Your task to perform on an android device: install app "McDonald's" Image 0: 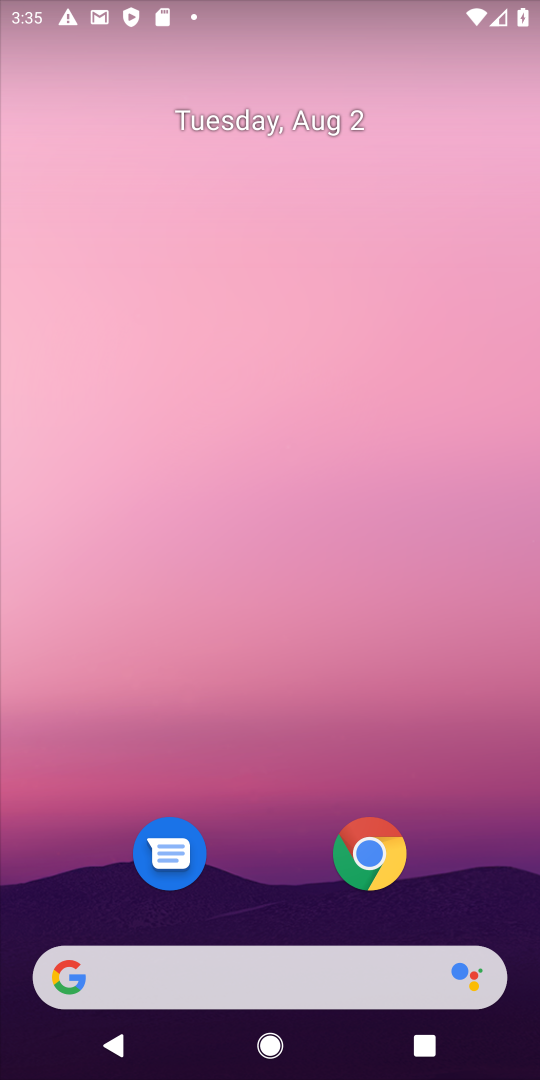
Step 0: drag from (299, 1067) to (321, 339)
Your task to perform on an android device: install app "McDonald's" Image 1: 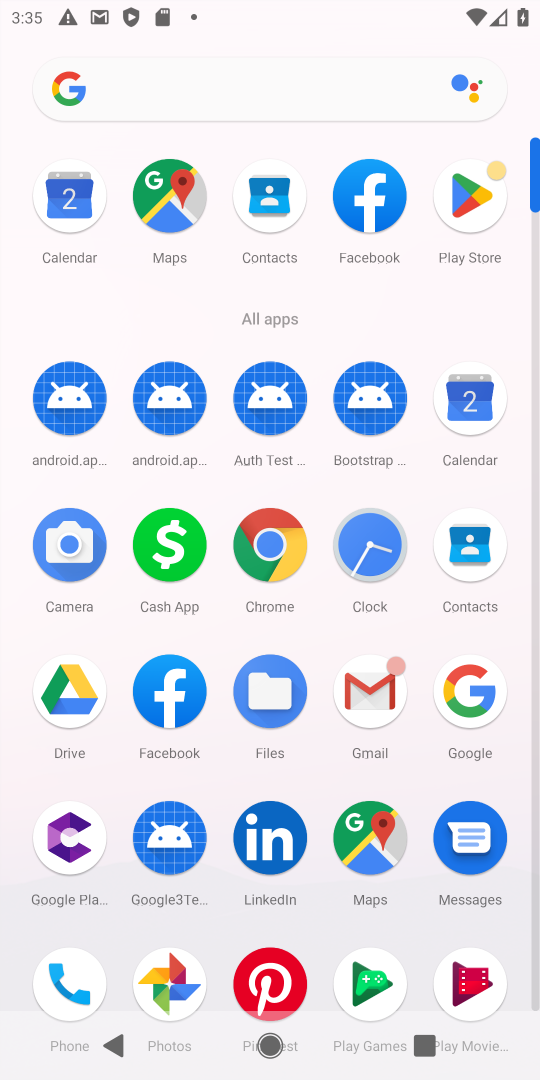
Step 1: click (471, 192)
Your task to perform on an android device: install app "McDonald's" Image 2: 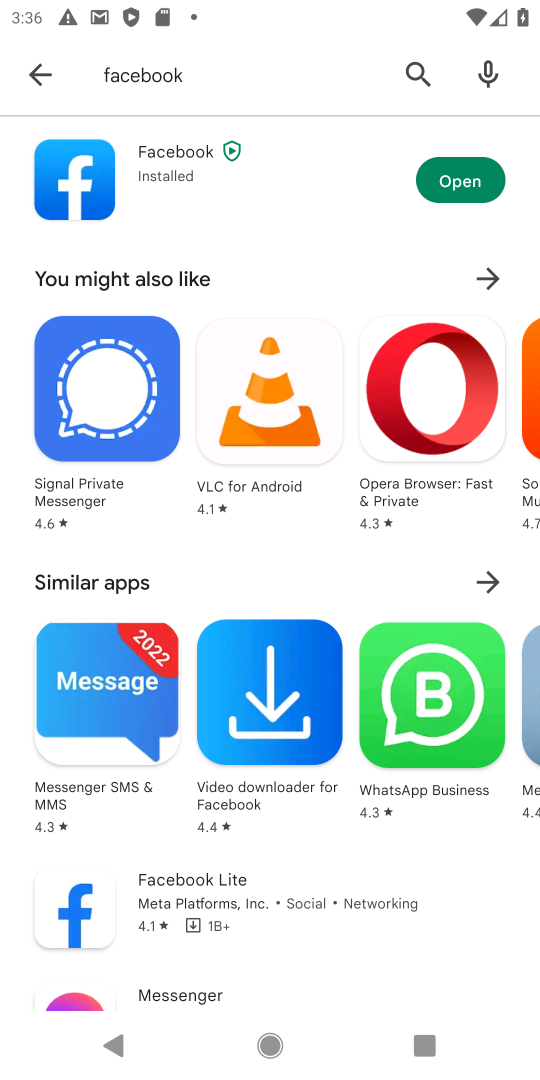
Step 2: click (414, 67)
Your task to perform on an android device: install app "McDonald's" Image 3: 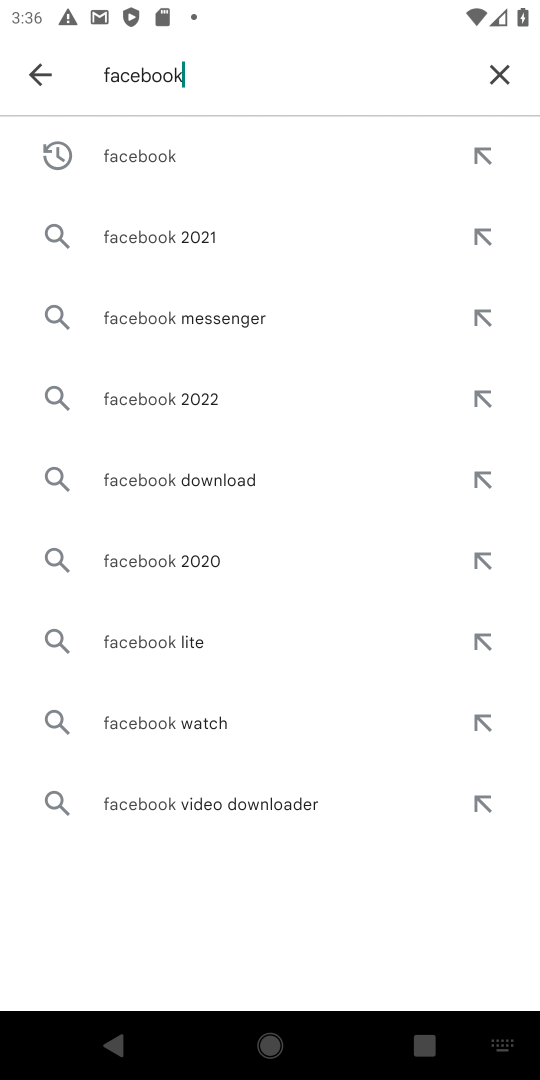
Step 3: click (508, 64)
Your task to perform on an android device: install app "McDonald's" Image 4: 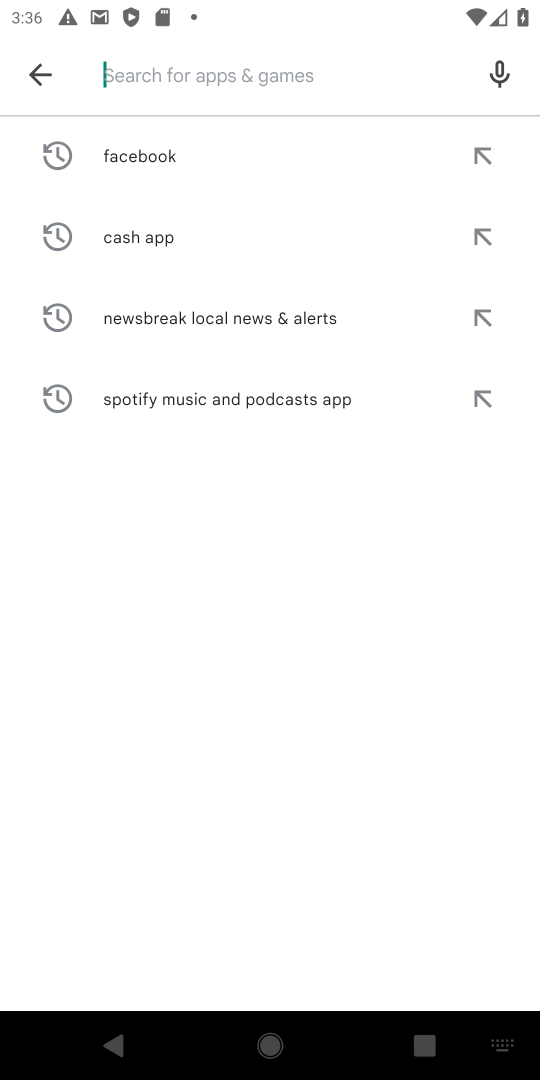
Step 4: type "McDonald's"
Your task to perform on an android device: install app "McDonald's" Image 5: 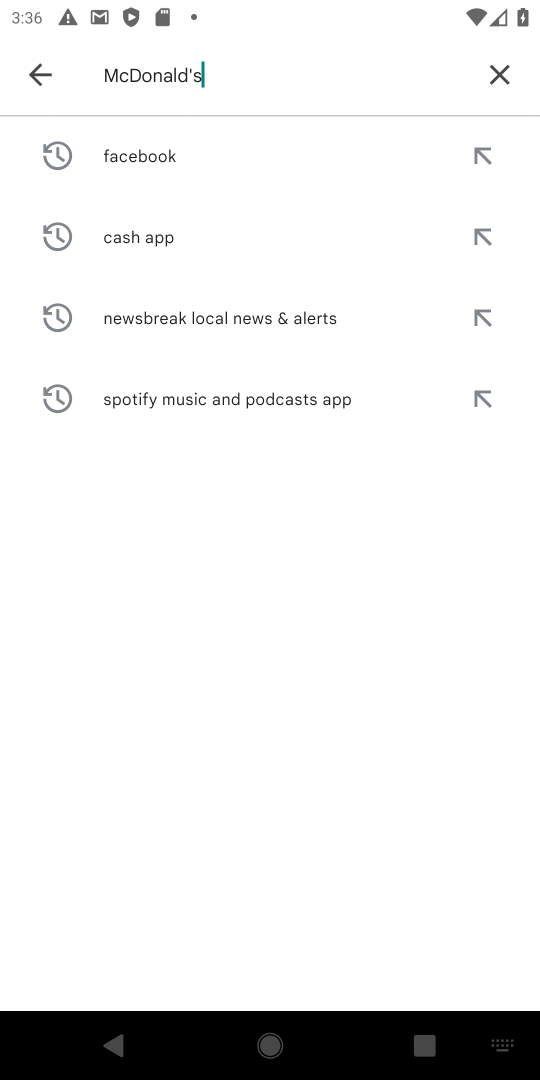
Step 5: type ""
Your task to perform on an android device: install app "McDonald's" Image 6: 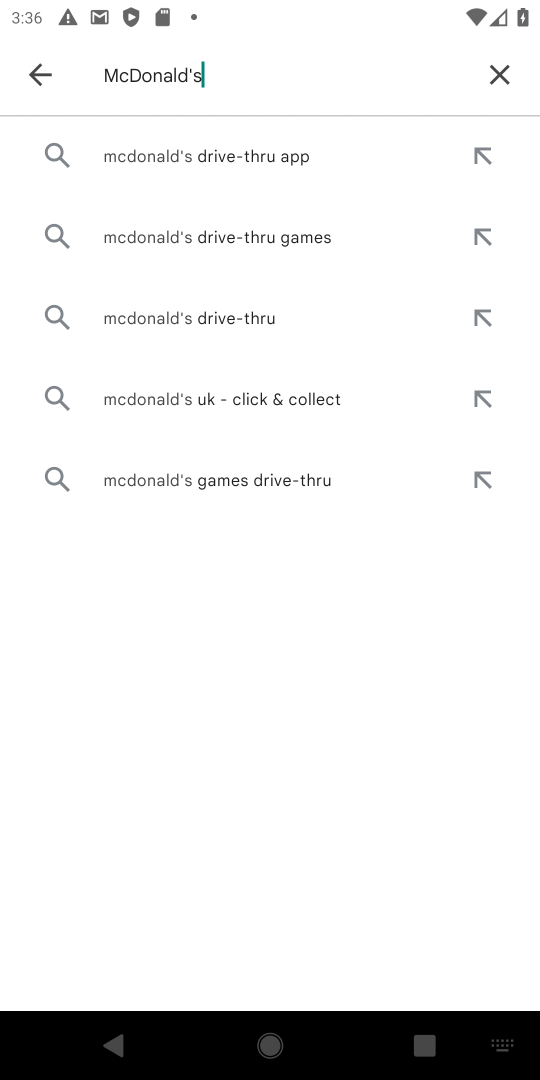
Step 6: click (149, 151)
Your task to perform on an android device: install app "McDonald's" Image 7: 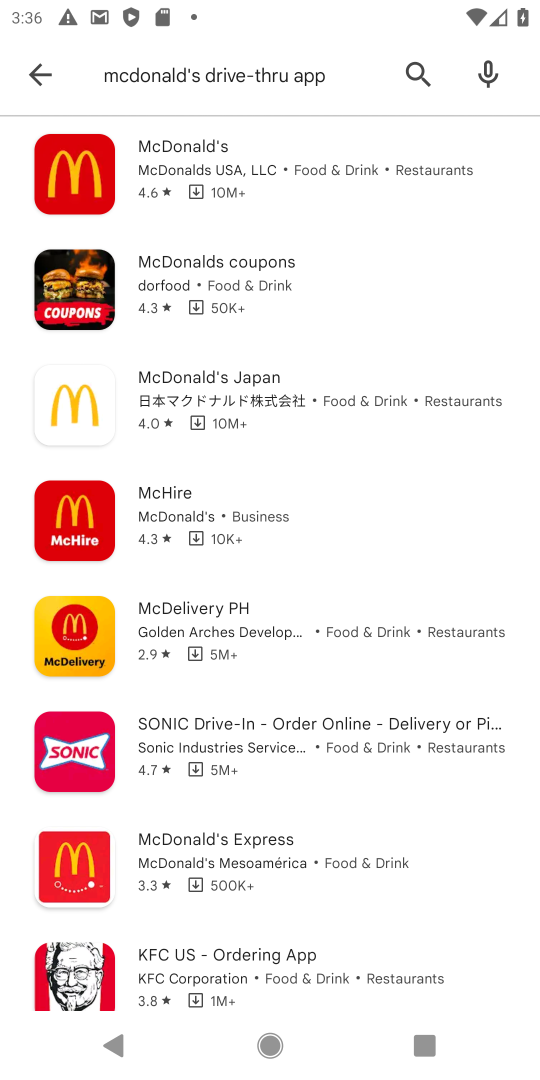
Step 7: click (196, 159)
Your task to perform on an android device: install app "McDonald's" Image 8: 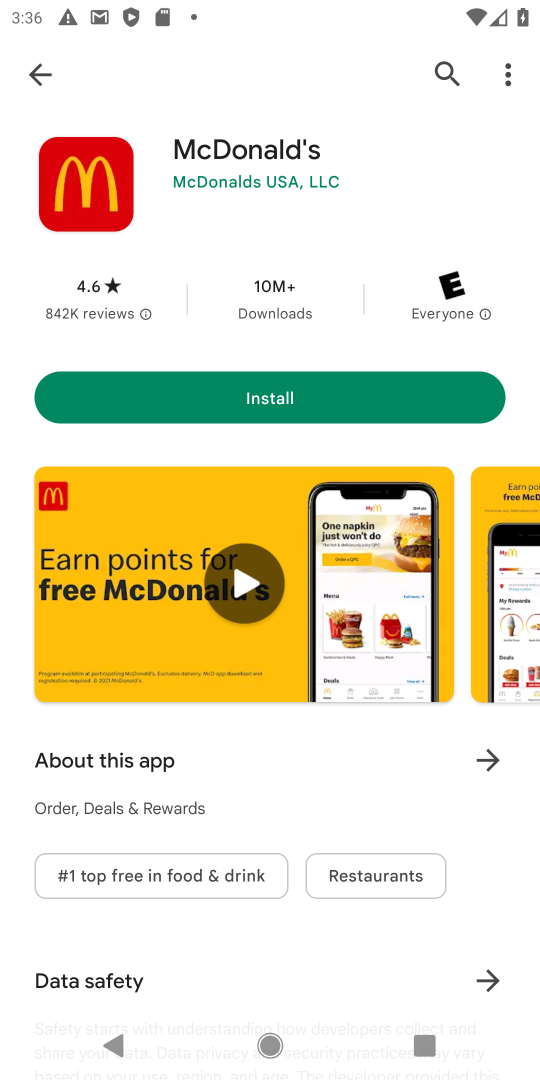
Step 8: click (270, 399)
Your task to perform on an android device: install app "McDonald's" Image 9: 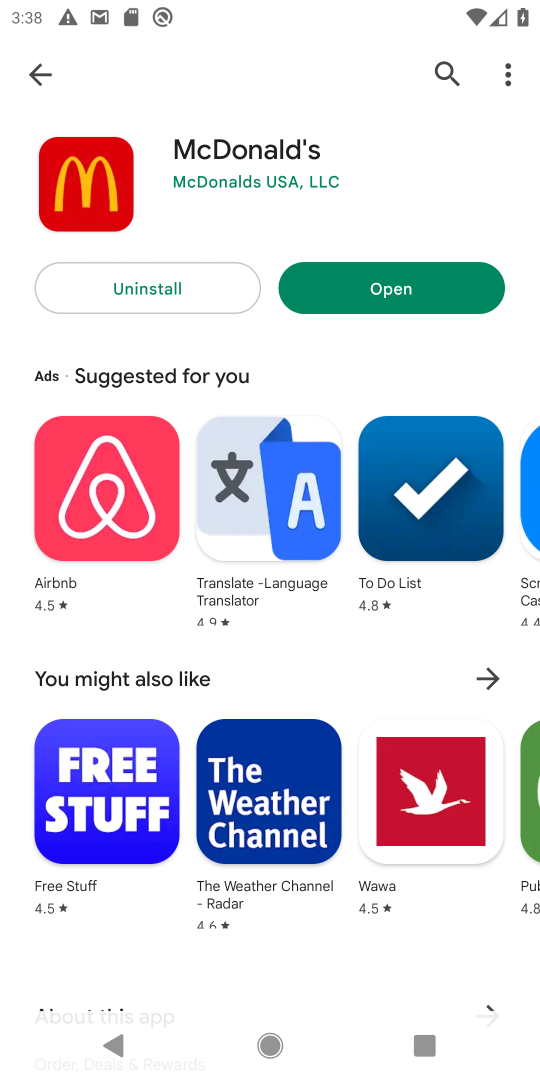
Step 9: task complete